Your task to perform on an android device: see sites visited before in the chrome app Image 0: 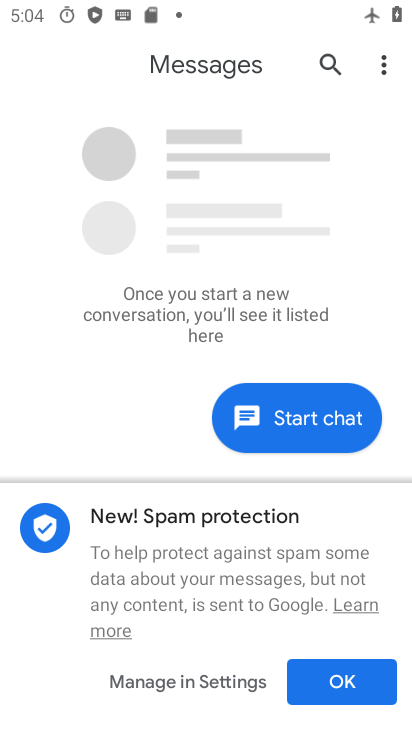
Step 0: press home button
Your task to perform on an android device: see sites visited before in the chrome app Image 1: 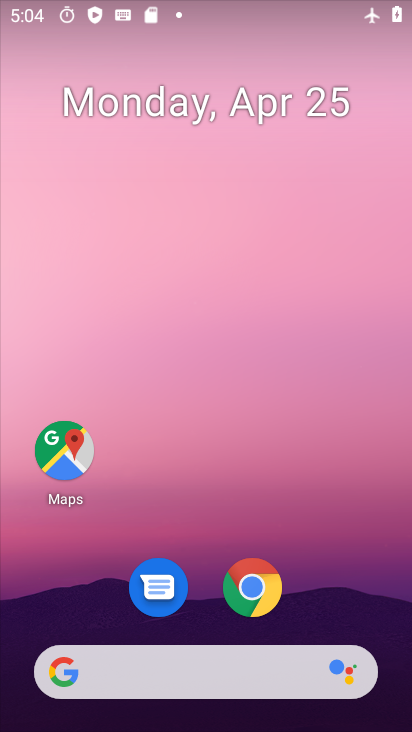
Step 1: drag from (368, 559) to (344, 7)
Your task to perform on an android device: see sites visited before in the chrome app Image 2: 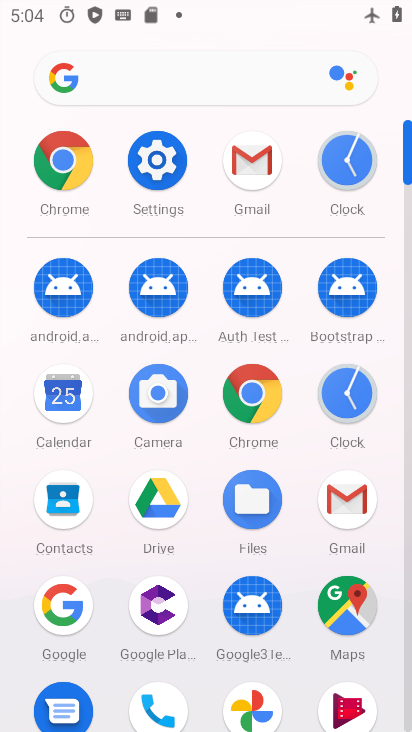
Step 2: click (250, 379)
Your task to perform on an android device: see sites visited before in the chrome app Image 3: 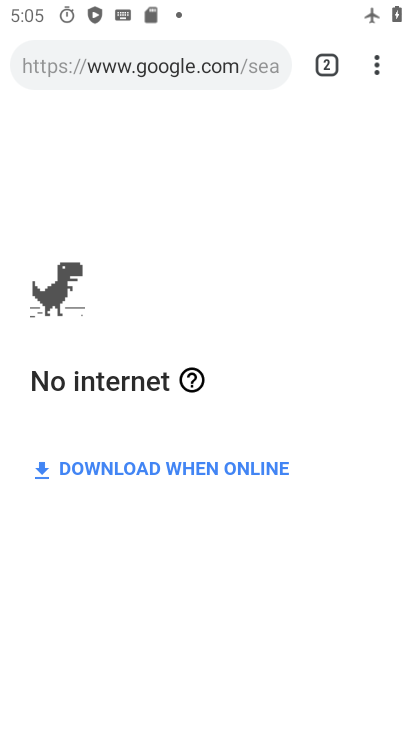
Step 3: task complete